Your task to perform on an android device: Check the price on the Dyson V11 Motorhead on Best Buy Image 0: 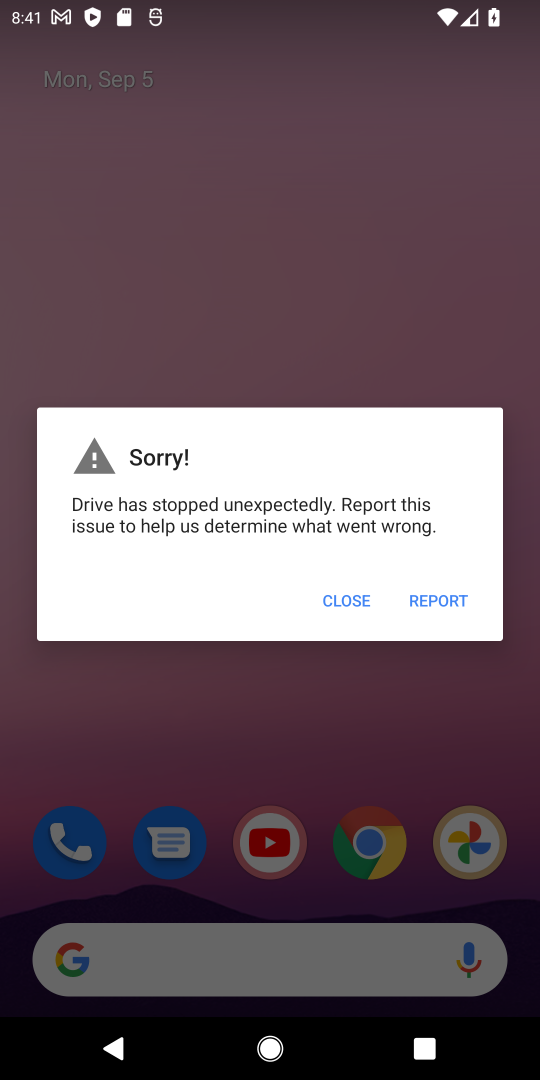
Step 0: press home button
Your task to perform on an android device: Check the price on the Dyson V11 Motorhead on Best Buy Image 1: 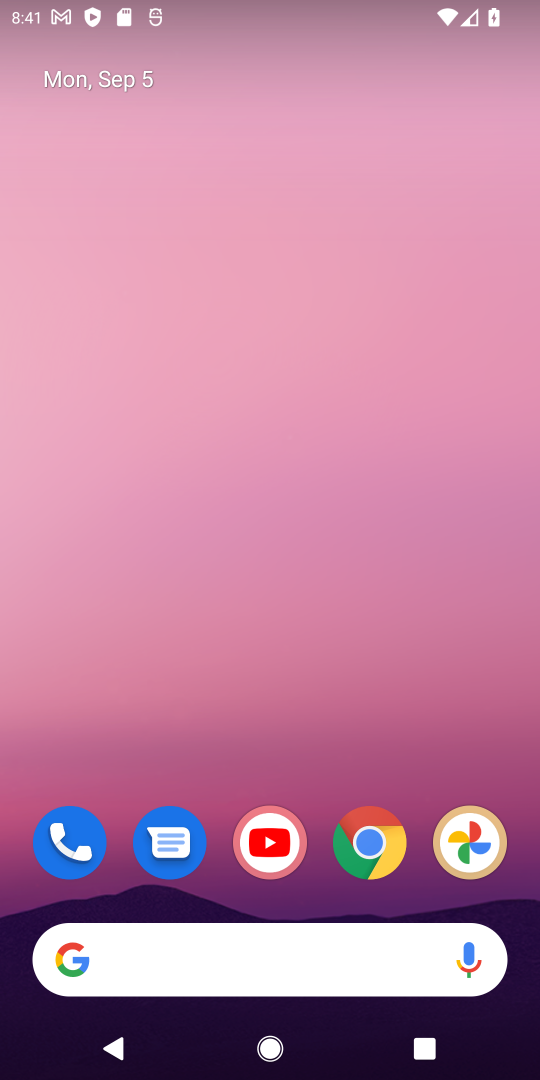
Step 1: drag from (325, 891) to (459, 150)
Your task to perform on an android device: Check the price on the Dyson V11 Motorhead on Best Buy Image 2: 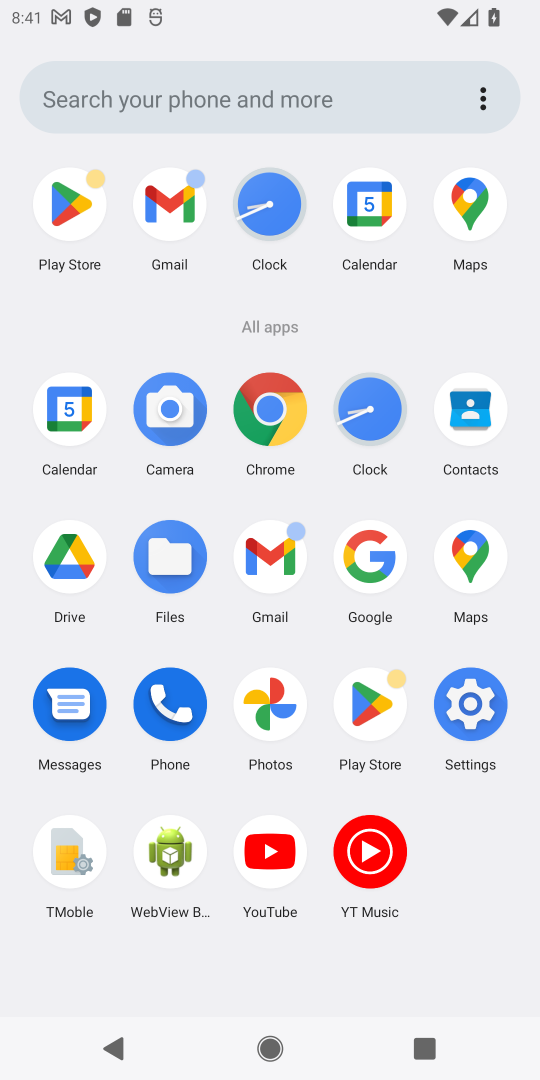
Step 2: click (277, 409)
Your task to perform on an android device: Check the price on the Dyson V11 Motorhead on Best Buy Image 3: 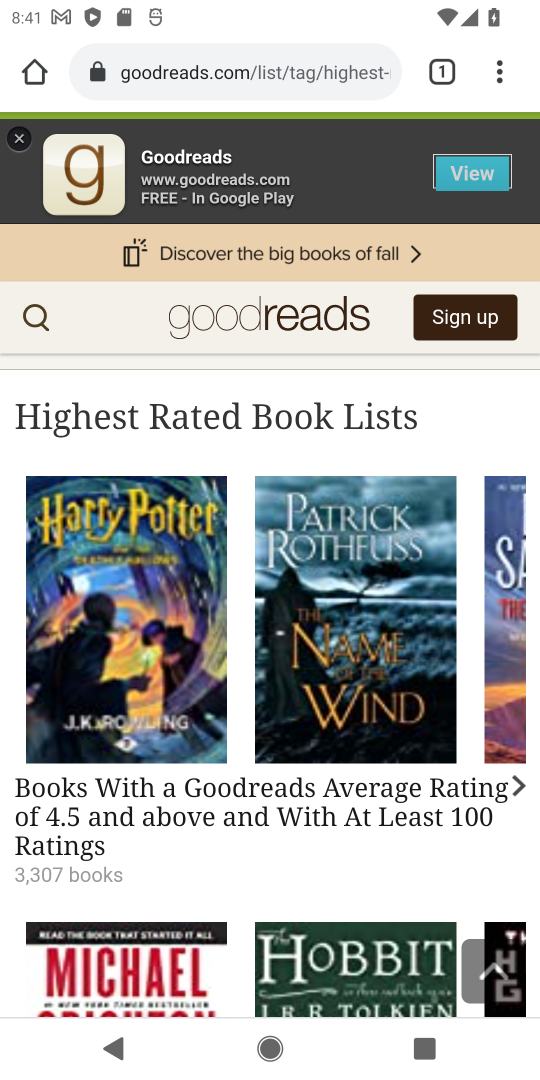
Step 3: click (336, 63)
Your task to perform on an android device: Check the price on the Dyson V11 Motorhead on Best Buy Image 4: 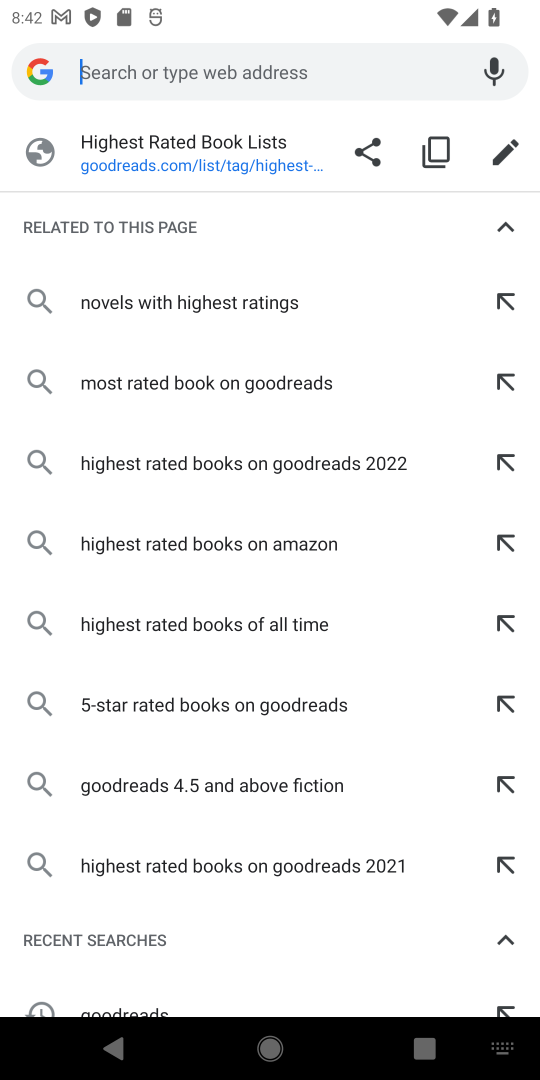
Step 4: type "Dyson V11 Motorhead on Best Buy"
Your task to perform on an android device: Check the price on the Dyson V11 Motorhead on Best Buy Image 5: 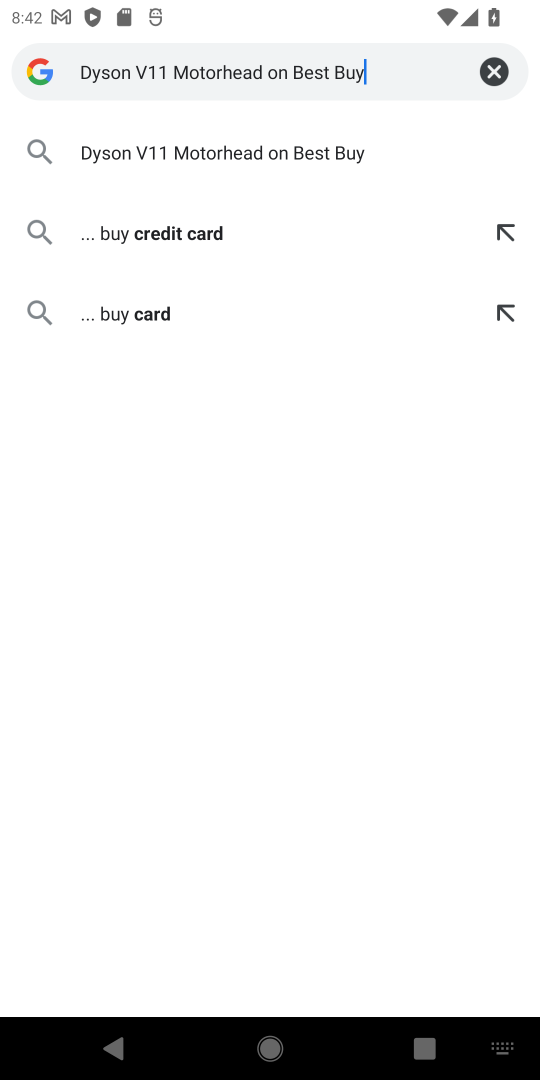
Step 5: press enter
Your task to perform on an android device: Check the price on the Dyson V11 Motorhead on Best Buy Image 6: 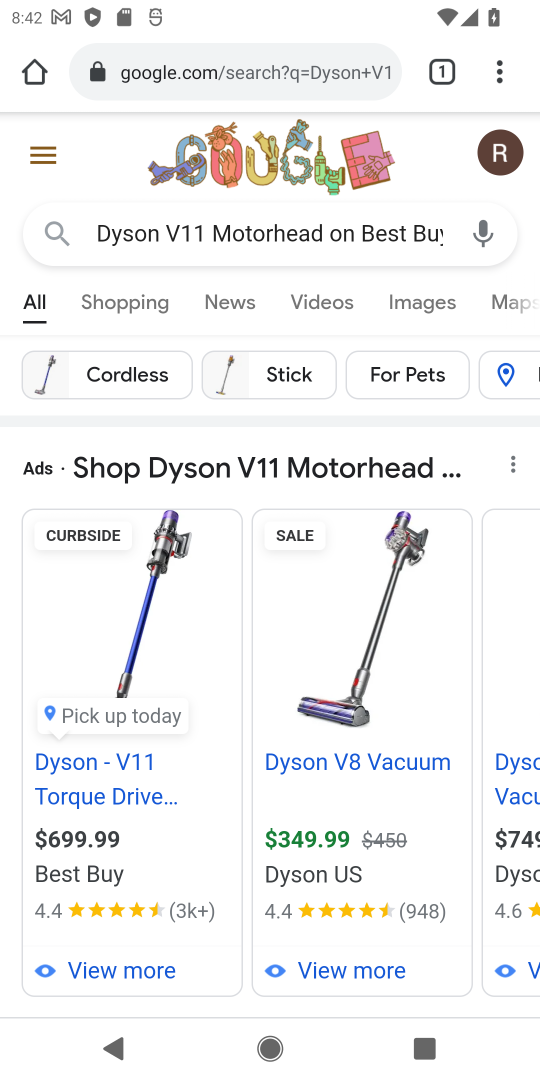
Step 6: task complete